Your task to perform on an android device: Open Amazon Image 0: 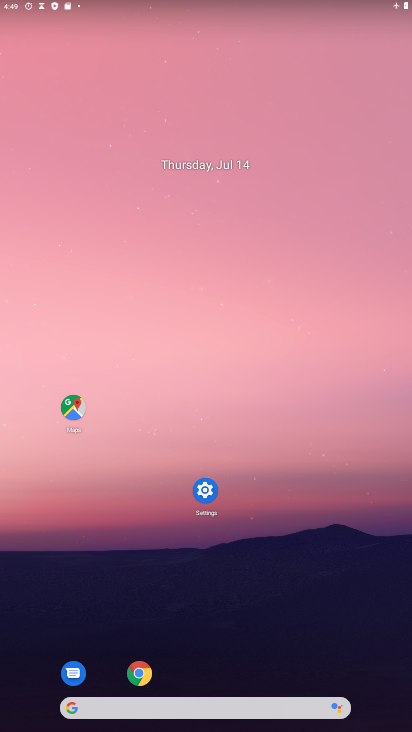
Step 0: drag from (270, 708) to (191, 86)
Your task to perform on an android device: Open Amazon Image 1: 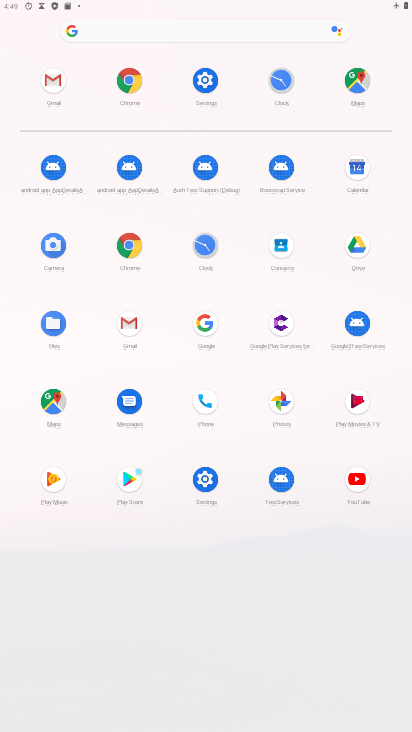
Step 1: click (127, 86)
Your task to perform on an android device: Open Amazon Image 2: 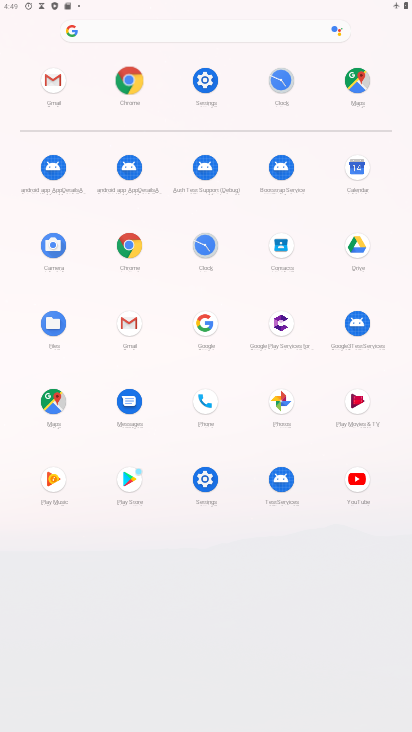
Step 2: click (126, 86)
Your task to perform on an android device: Open Amazon Image 3: 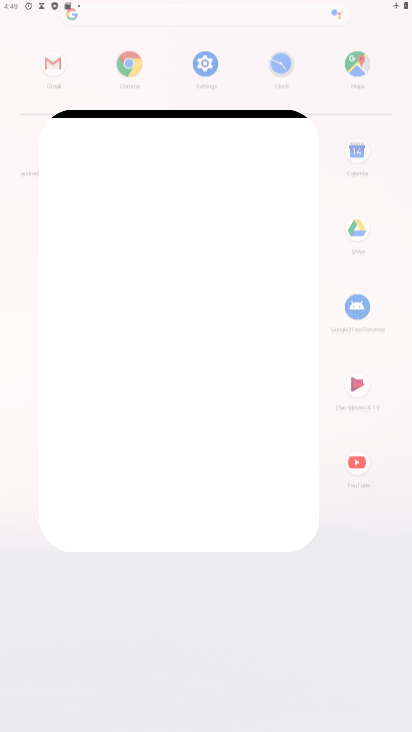
Step 3: click (125, 85)
Your task to perform on an android device: Open Amazon Image 4: 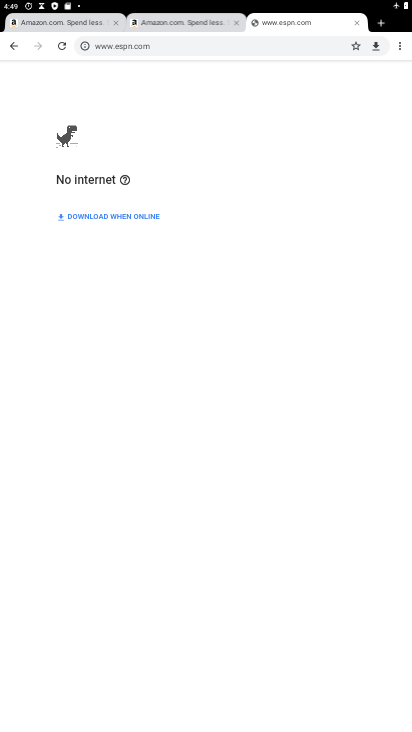
Step 4: drag from (397, 44) to (247, 229)
Your task to perform on an android device: Open Amazon Image 5: 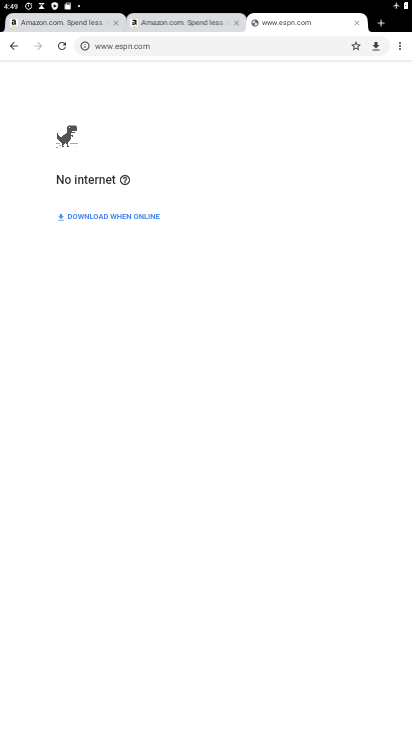
Step 5: click (292, 48)
Your task to perform on an android device: Open Amazon Image 6: 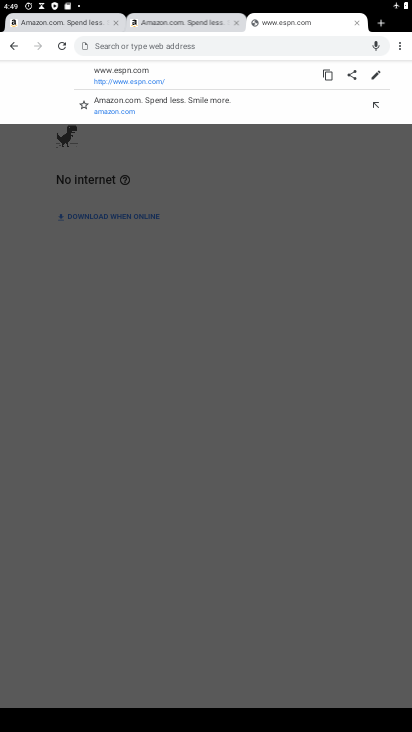
Step 6: drag from (401, 44) to (309, 41)
Your task to perform on an android device: Open Amazon Image 7: 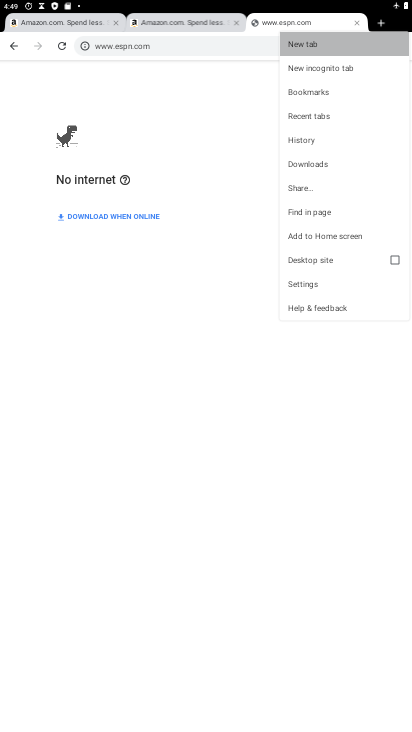
Step 7: drag from (401, 48) to (309, 41)
Your task to perform on an android device: Open Amazon Image 8: 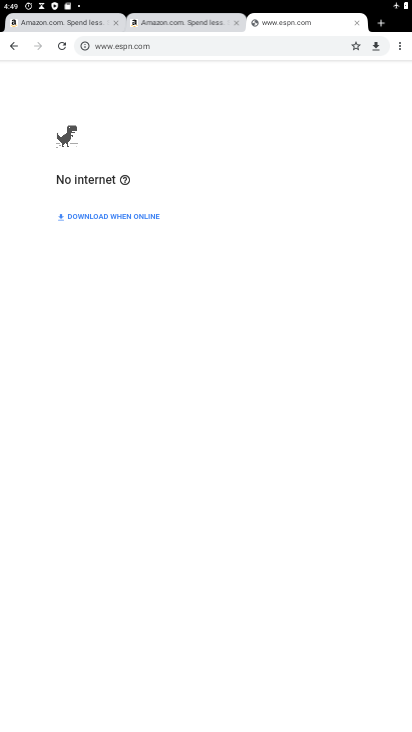
Step 8: drag from (401, 48) to (312, 40)
Your task to perform on an android device: Open Amazon Image 9: 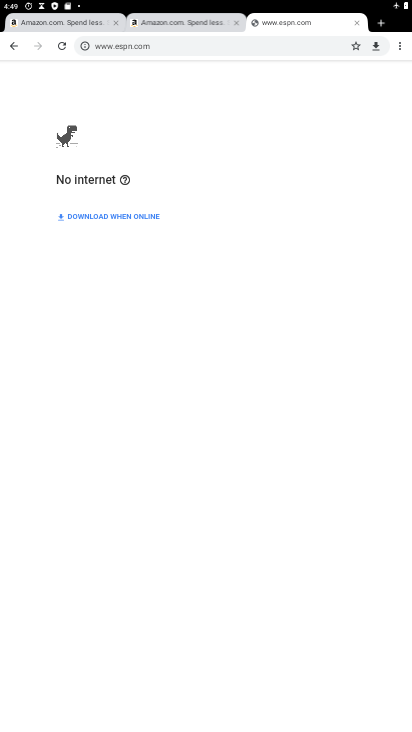
Step 9: click (313, 40)
Your task to perform on an android device: Open Amazon Image 10: 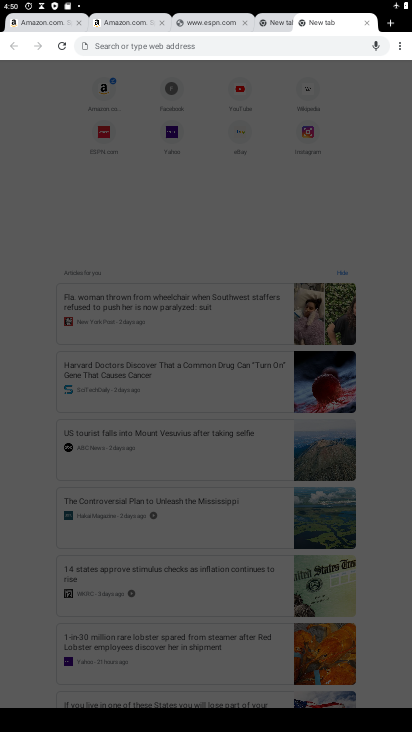
Step 10: click (109, 77)
Your task to perform on an android device: Open Amazon Image 11: 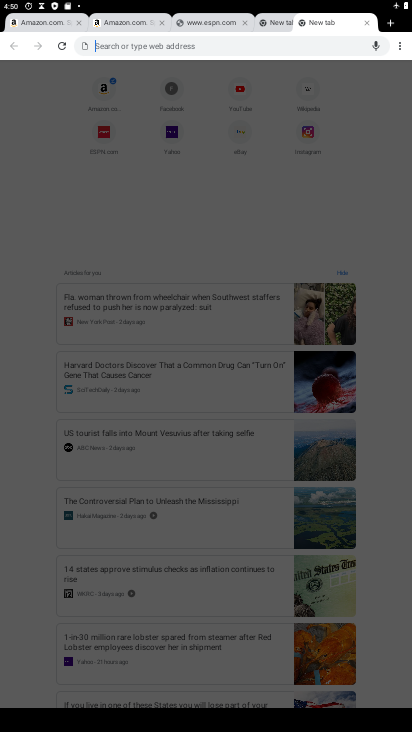
Step 11: drag from (110, 83) to (112, 178)
Your task to perform on an android device: Open Amazon Image 12: 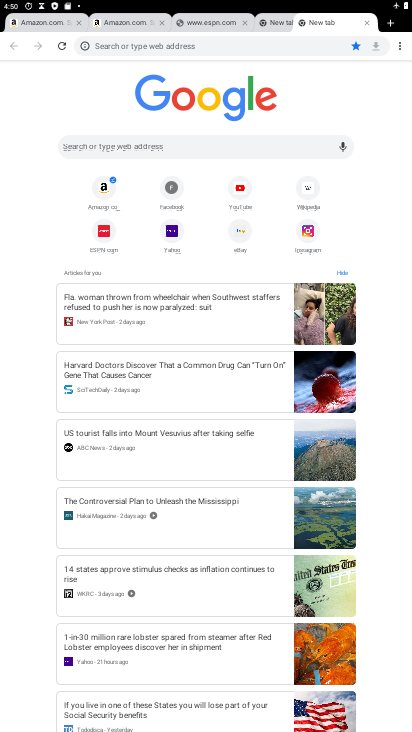
Step 12: click (112, 178)
Your task to perform on an android device: Open Amazon Image 13: 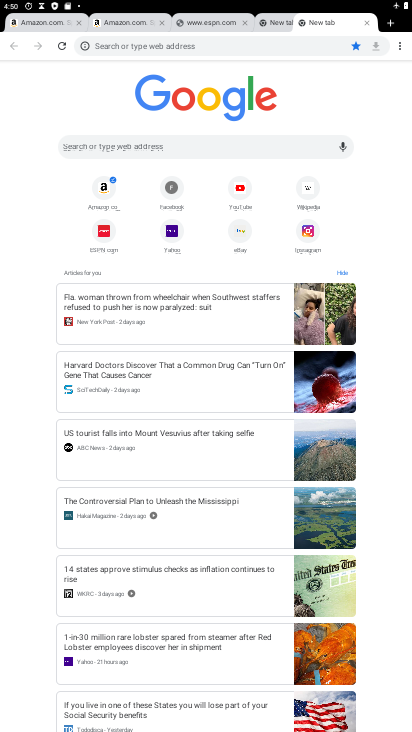
Step 13: click (113, 177)
Your task to perform on an android device: Open Amazon Image 14: 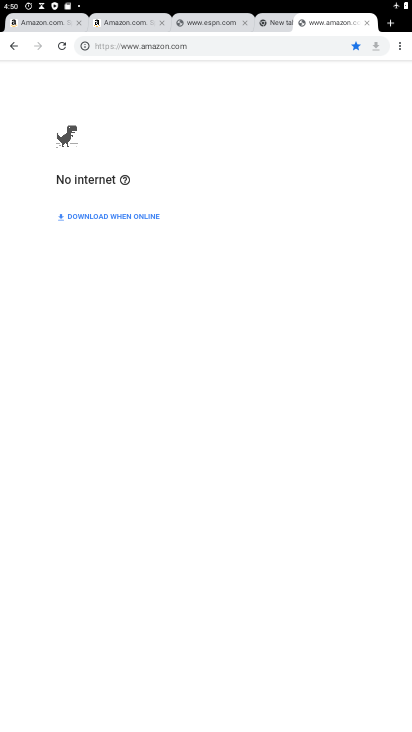
Step 14: click (113, 185)
Your task to perform on an android device: Open Amazon Image 15: 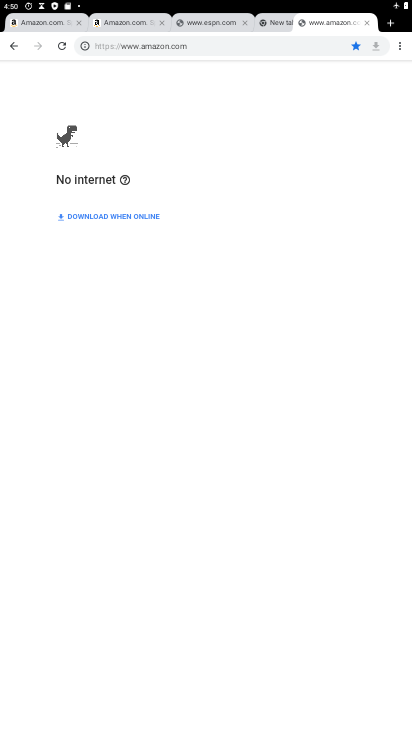
Step 15: click (113, 185)
Your task to perform on an android device: Open Amazon Image 16: 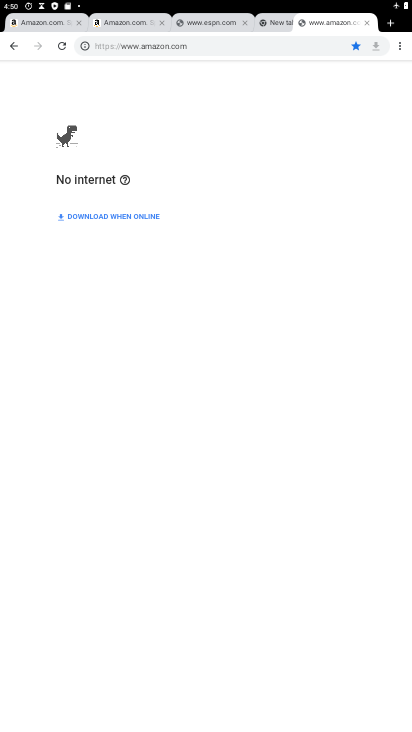
Step 16: task complete